Your task to perform on an android device: change the upload size in google photos Image 0: 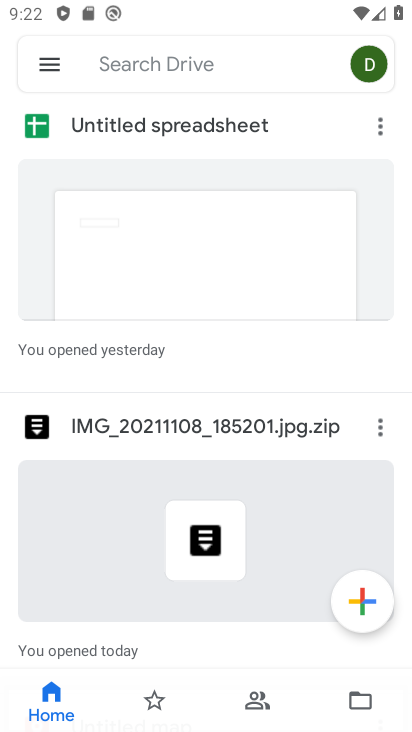
Step 0: press home button
Your task to perform on an android device: change the upload size in google photos Image 1: 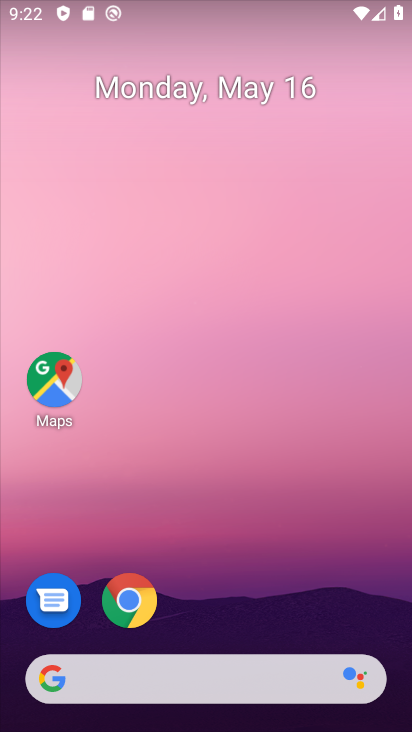
Step 1: drag from (273, 598) to (233, 118)
Your task to perform on an android device: change the upload size in google photos Image 2: 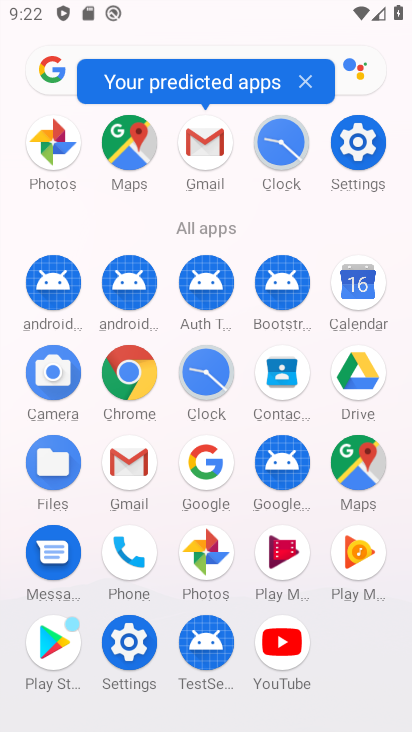
Step 2: click (203, 556)
Your task to perform on an android device: change the upload size in google photos Image 3: 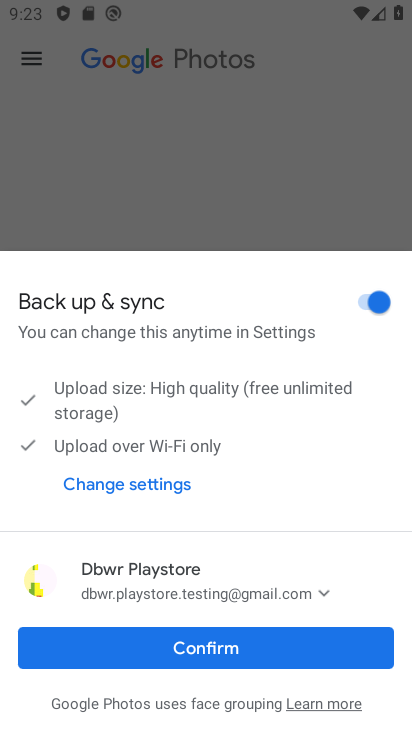
Step 3: click (220, 649)
Your task to perform on an android device: change the upload size in google photos Image 4: 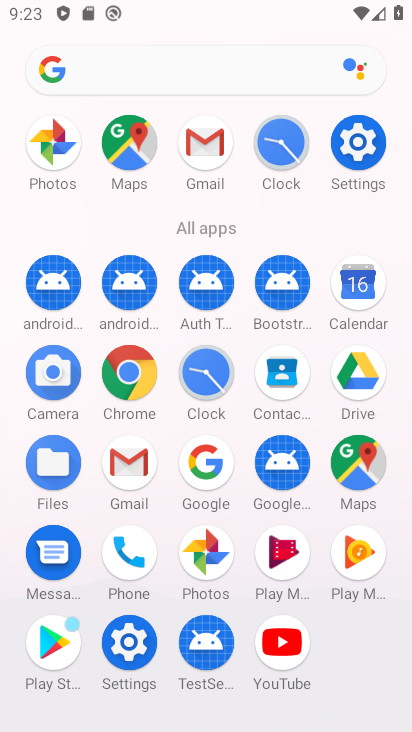
Step 4: click (207, 553)
Your task to perform on an android device: change the upload size in google photos Image 5: 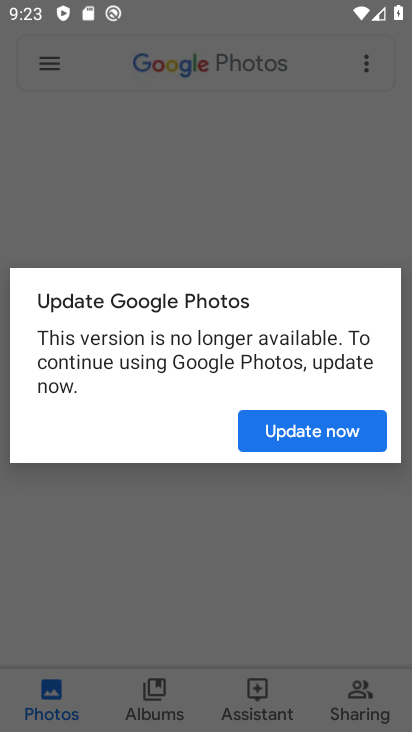
Step 5: click (300, 439)
Your task to perform on an android device: change the upload size in google photos Image 6: 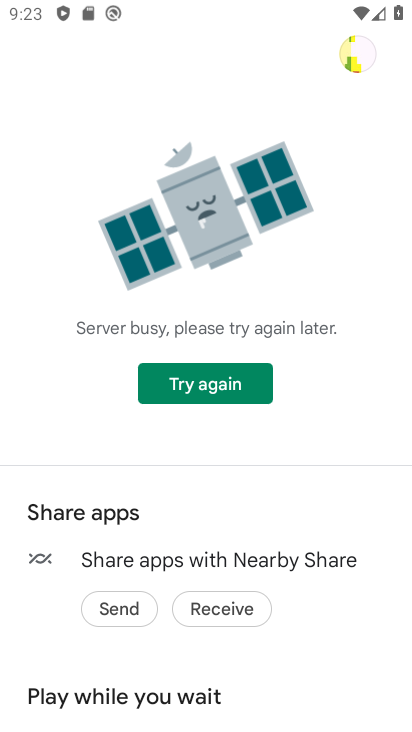
Step 6: task complete